Your task to perform on an android device: check storage Image 0: 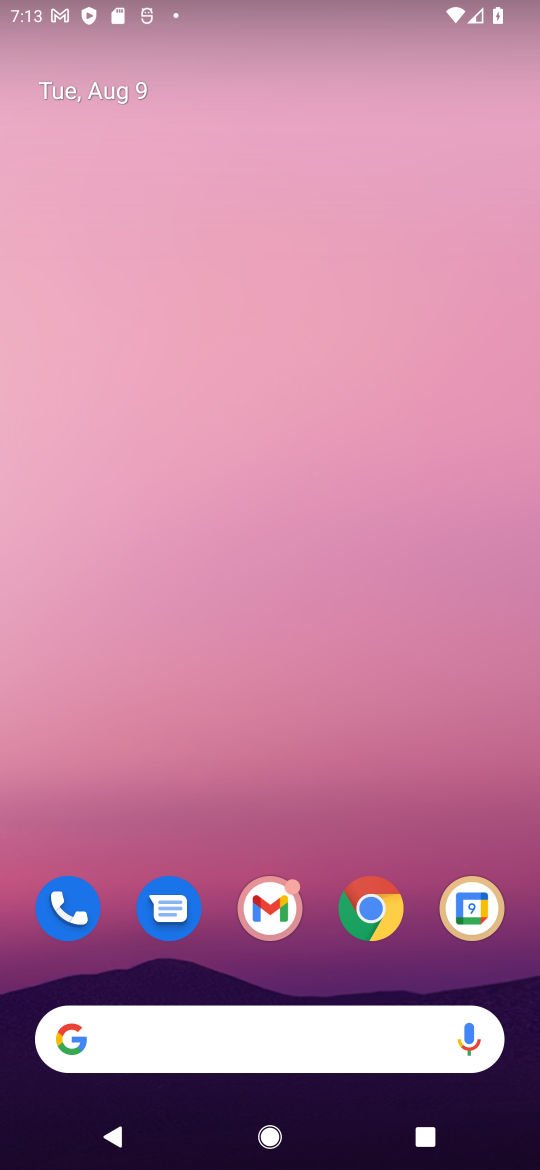
Step 0: drag from (293, 990) to (278, 214)
Your task to perform on an android device: check storage Image 1: 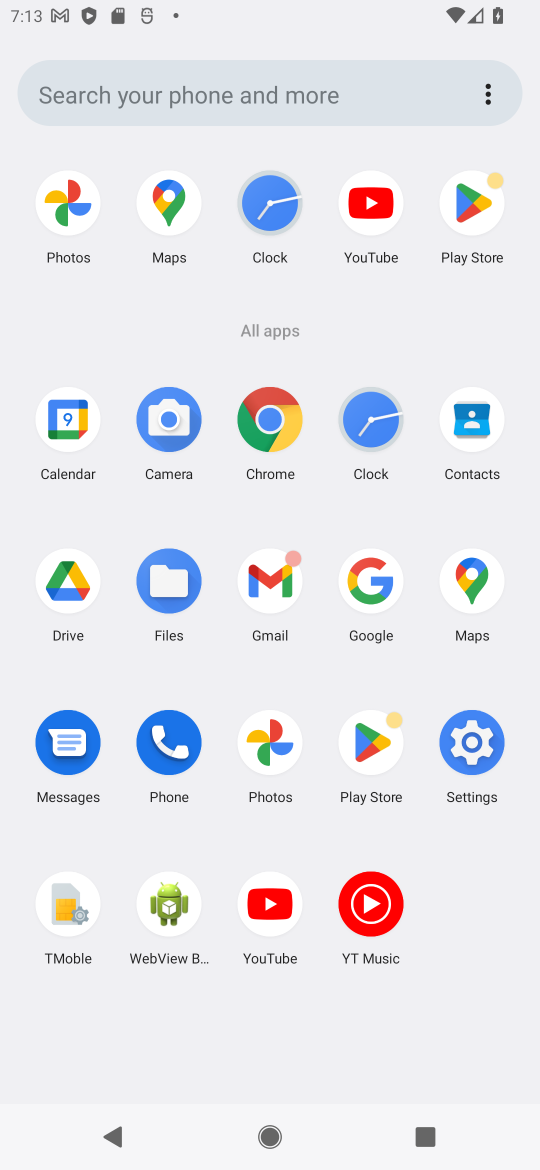
Step 1: click (460, 748)
Your task to perform on an android device: check storage Image 2: 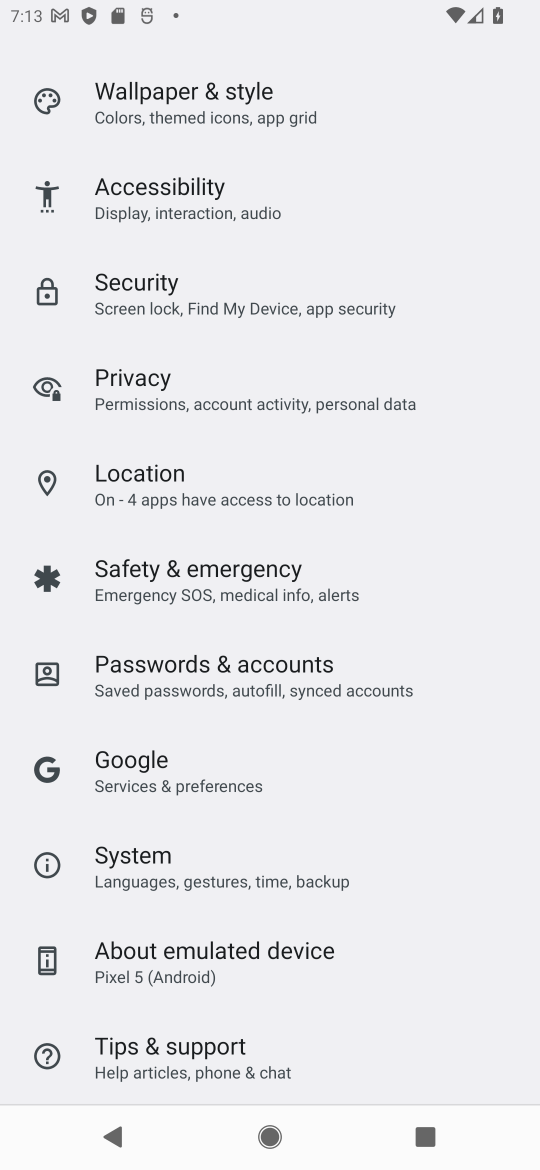
Step 2: drag from (157, 310) to (190, 907)
Your task to perform on an android device: check storage Image 3: 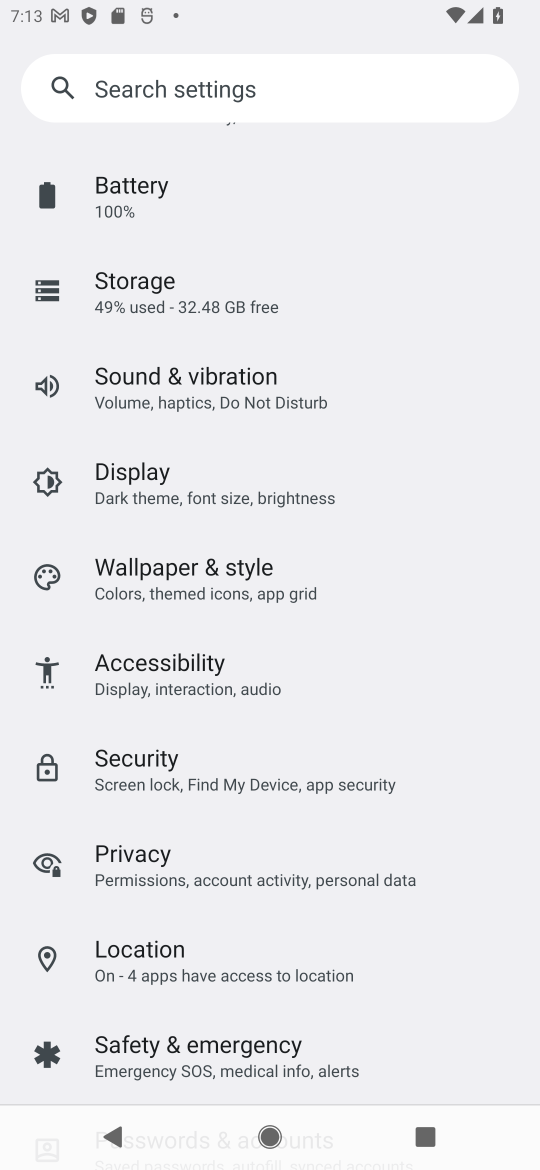
Step 3: click (137, 300)
Your task to perform on an android device: check storage Image 4: 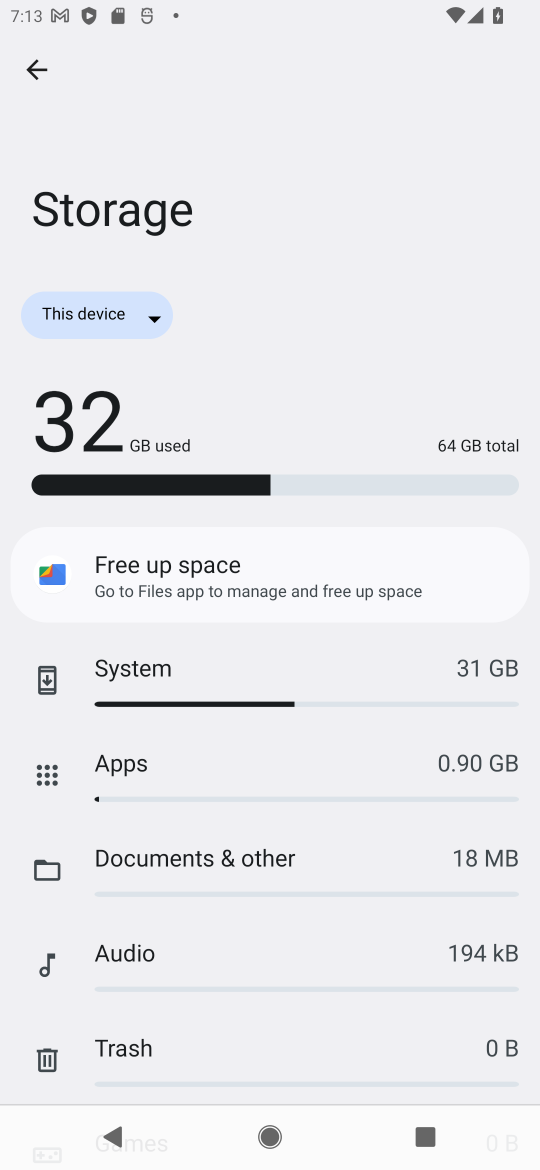
Step 4: task complete